Your task to perform on an android device: stop showing notifications on the lock screen Image 0: 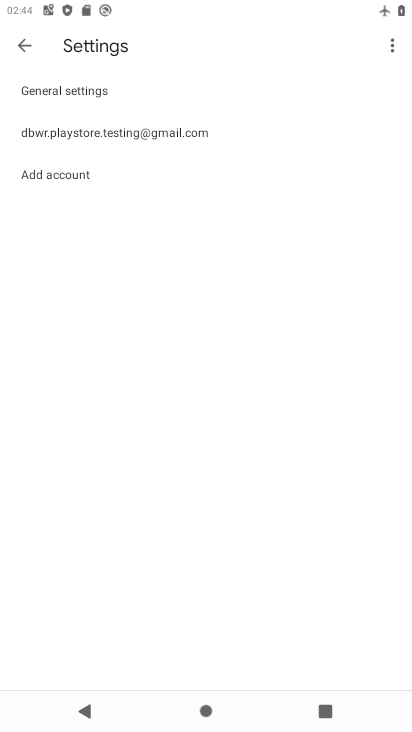
Step 0: press home button
Your task to perform on an android device: stop showing notifications on the lock screen Image 1: 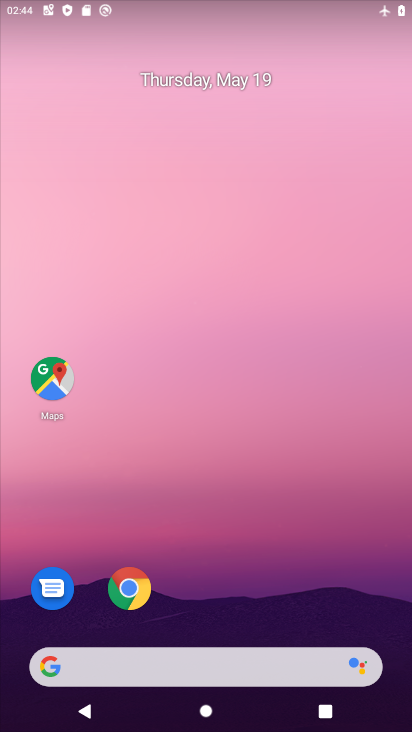
Step 1: drag from (204, 564) to (204, 104)
Your task to perform on an android device: stop showing notifications on the lock screen Image 2: 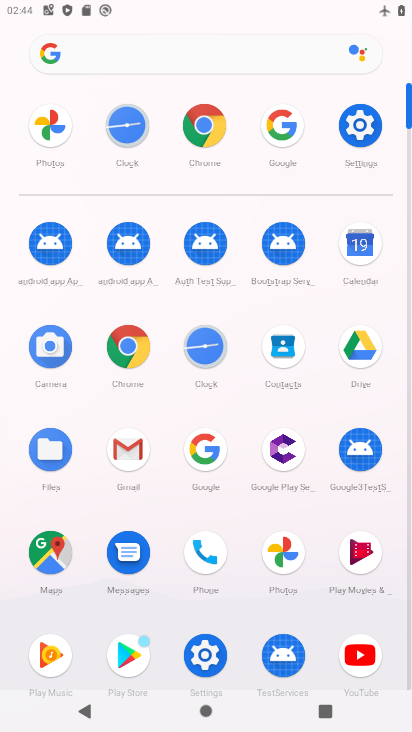
Step 2: click (362, 125)
Your task to perform on an android device: stop showing notifications on the lock screen Image 3: 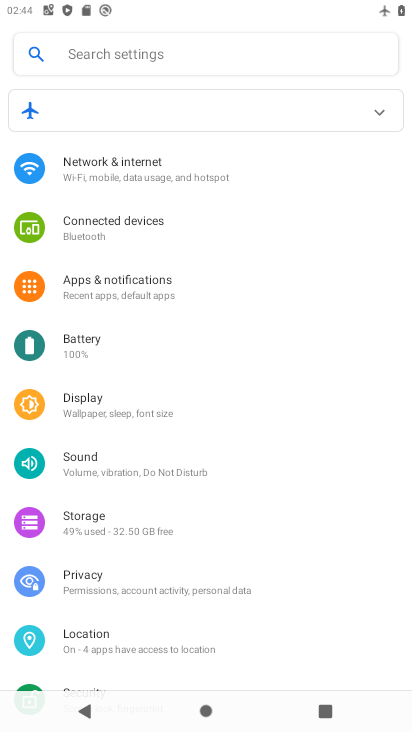
Step 3: click (132, 285)
Your task to perform on an android device: stop showing notifications on the lock screen Image 4: 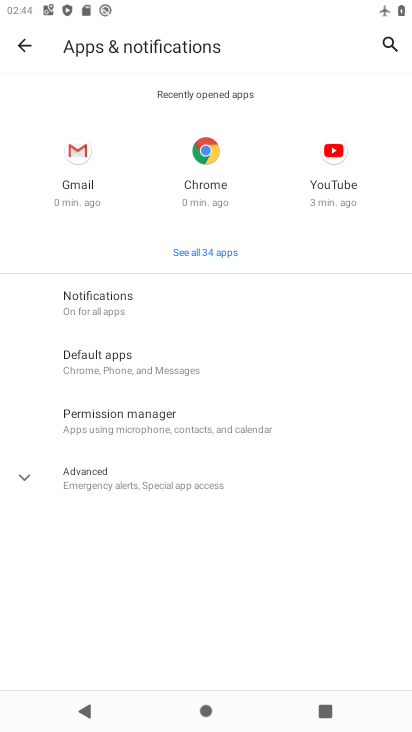
Step 4: click (143, 295)
Your task to perform on an android device: stop showing notifications on the lock screen Image 5: 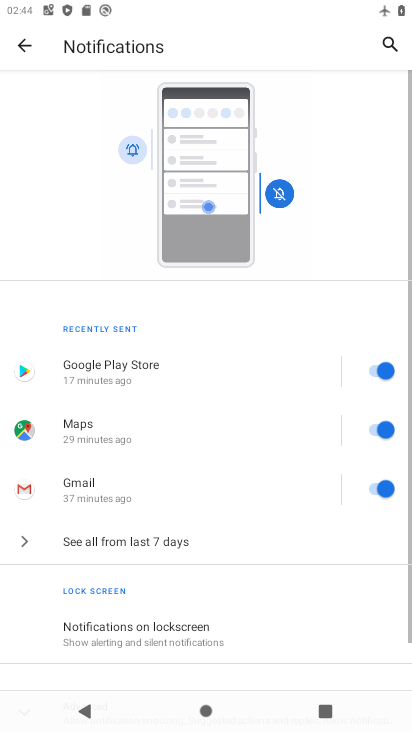
Step 5: drag from (177, 604) to (169, 305)
Your task to perform on an android device: stop showing notifications on the lock screen Image 6: 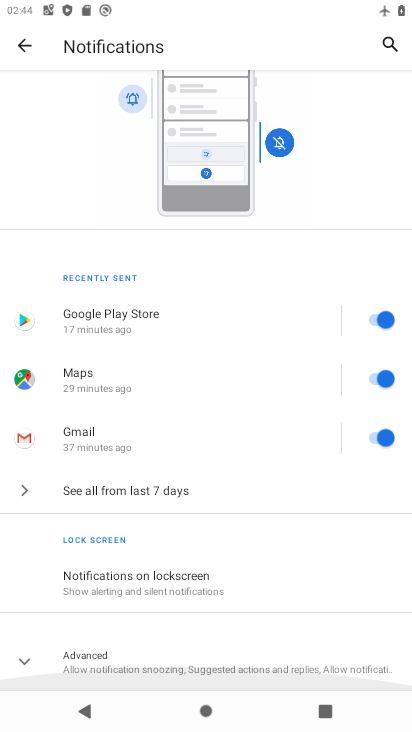
Step 6: click (169, 570)
Your task to perform on an android device: stop showing notifications on the lock screen Image 7: 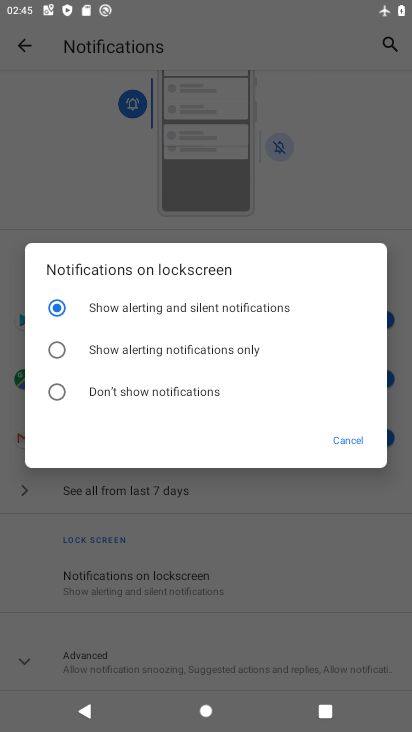
Step 7: click (73, 392)
Your task to perform on an android device: stop showing notifications on the lock screen Image 8: 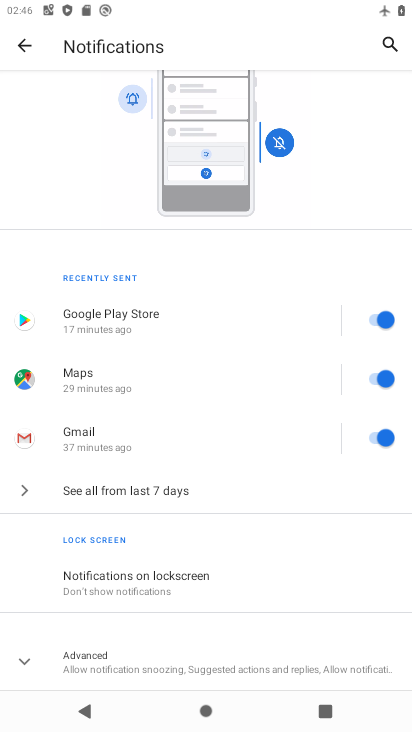
Step 8: task complete